Your task to perform on an android device: turn off airplane mode Image 0: 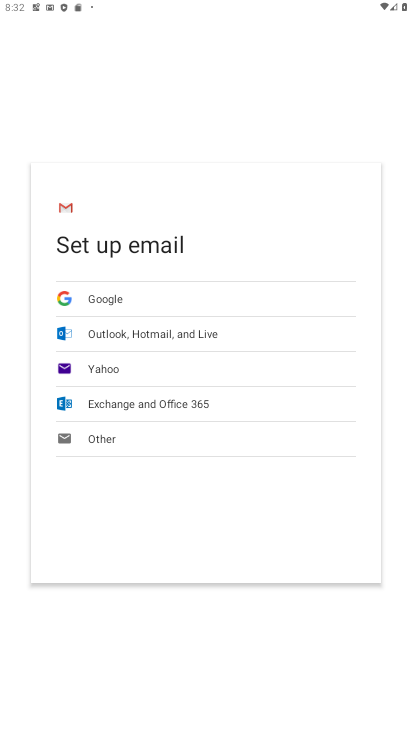
Step 0: press home button
Your task to perform on an android device: turn off airplane mode Image 1: 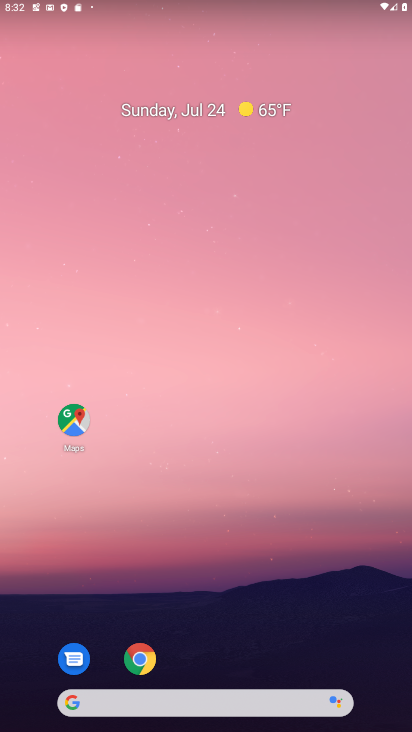
Step 1: drag from (295, 656) to (257, 5)
Your task to perform on an android device: turn off airplane mode Image 2: 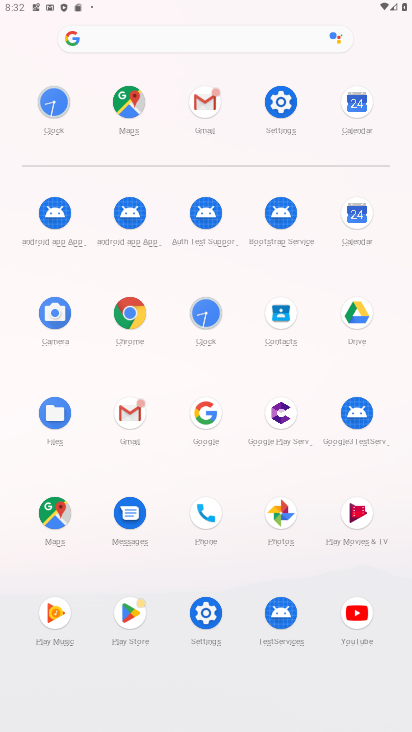
Step 2: click (282, 122)
Your task to perform on an android device: turn off airplane mode Image 3: 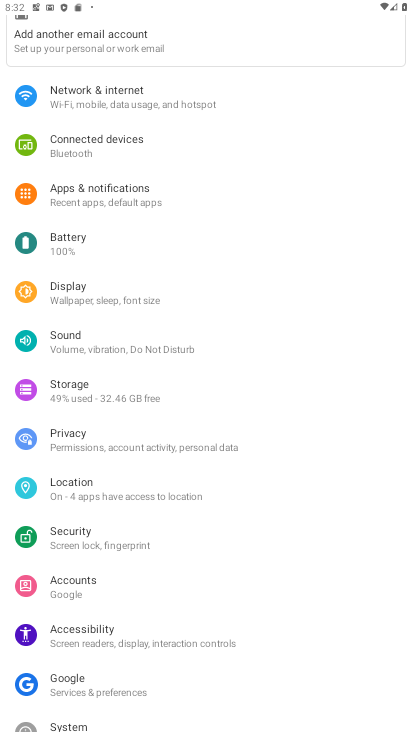
Step 3: click (81, 102)
Your task to perform on an android device: turn off airplane mode Image 4: 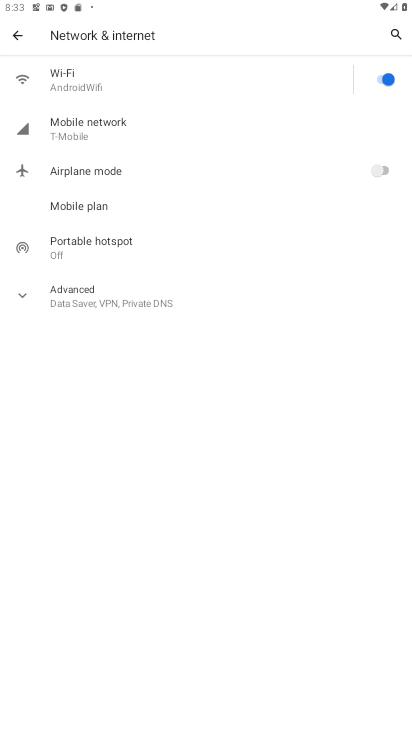
Step 4: task complete